Your task to perform on an android device: toggle sleep mode Image 0: 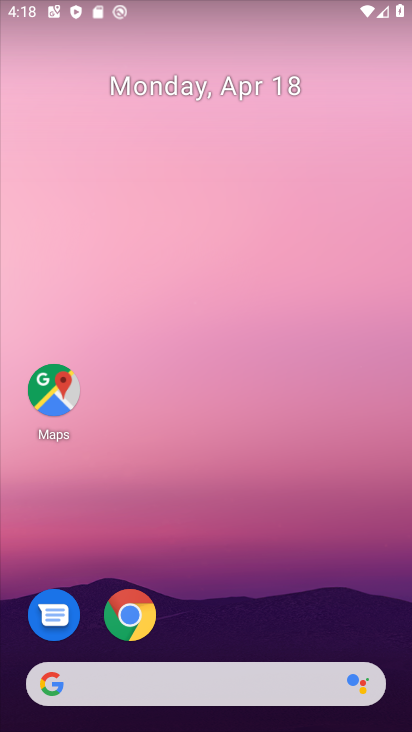
Step 0: drag from (331, 6) to (278, 633)
Your task to perform on an android device: toggle sleep mode Image 1: 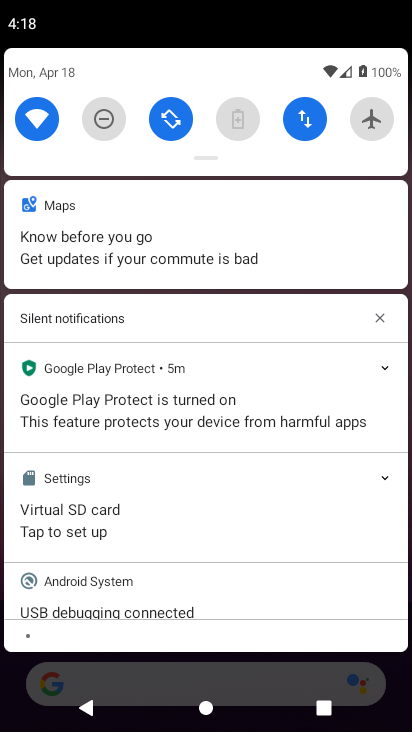
Step 1: drag from (204, 152) to (182, 578)
Your task to perform on an android device: toggle sleep mode Image 2: 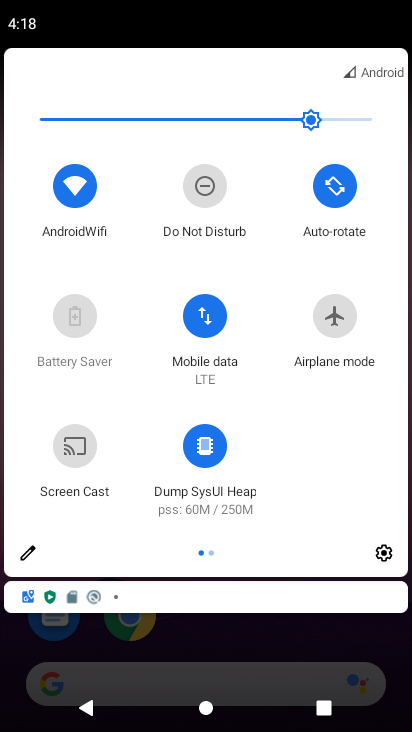
Step 2: click (31, 543)
Your task to perform on an android device: toggle sleep mode Image 3: 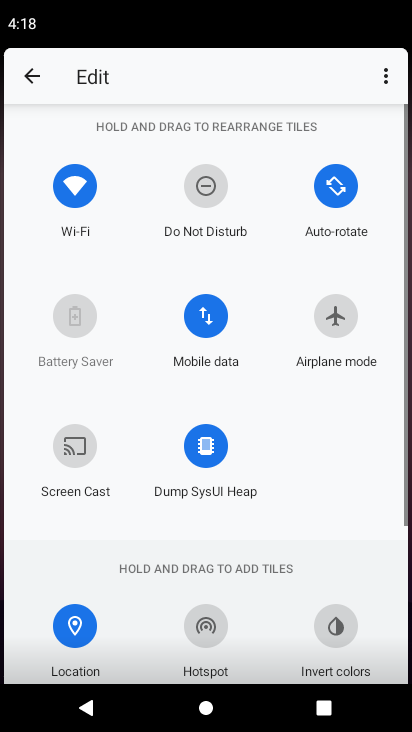
Step 3: task complete